Your task to perform on an android device: Check the best rated table lamp on Crate and Barrel Image 0: 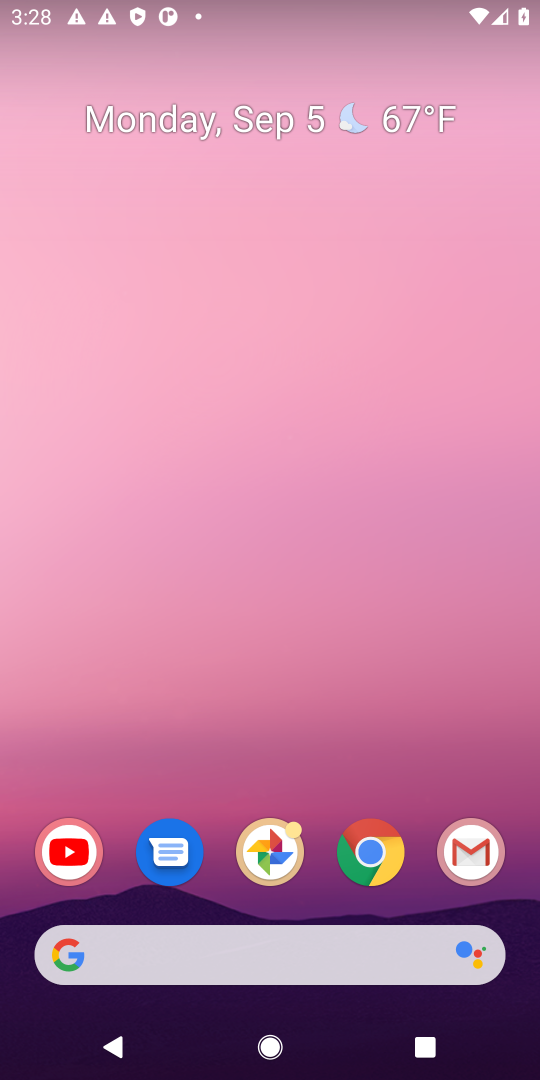
Step 0: click (369, 852)
Your task to perform on an android device: Check the best rated table lamp on Crate and Barrel Image 1: 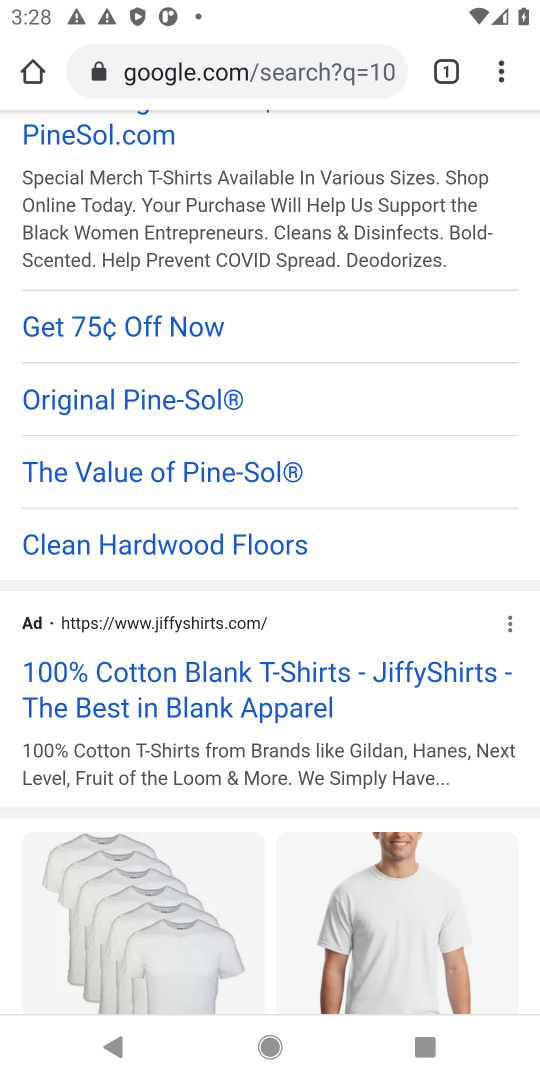
Step 1: click (356, 43)
Your task to perform on an android device: Check the best rated table lamp on Crate and Barrel Image 2: 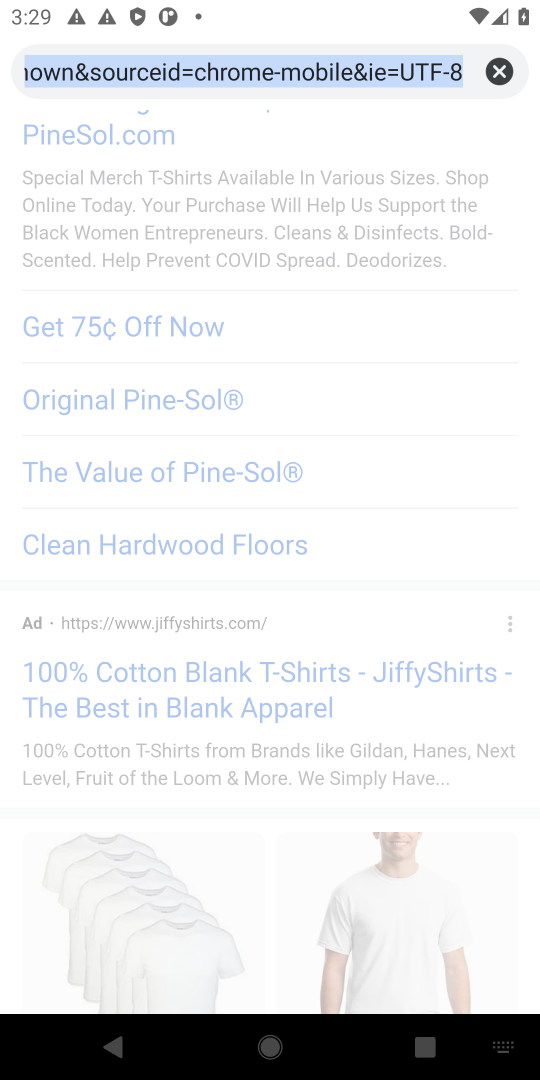
Step 2: click (493, 66)
Your task to perform on an android device: Check the best rated table lamp on Crate and Barrel Image 3: 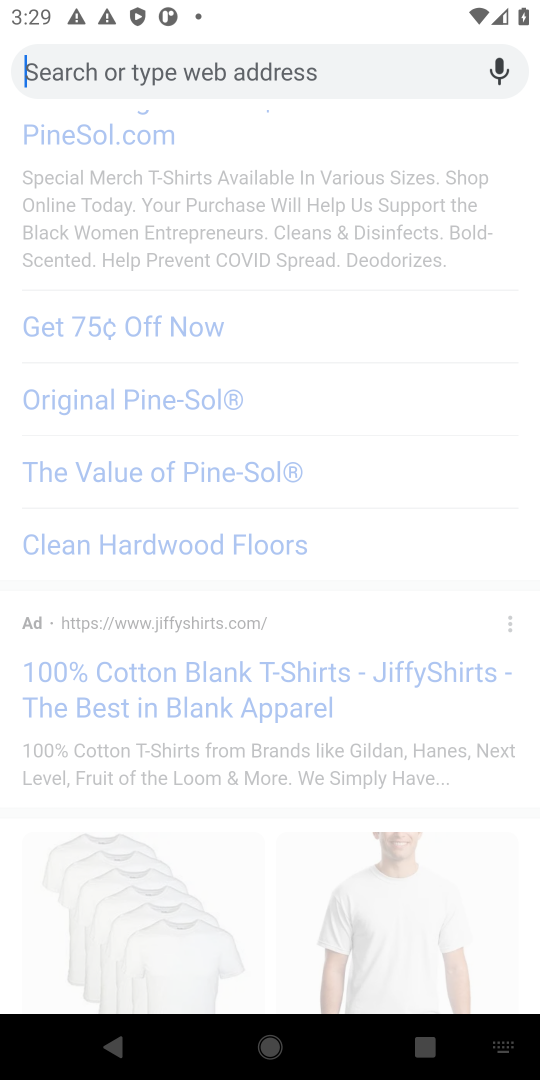
Step 3: type "Crate and Barrel"
Your task to perform on an android device: Check the best rated table lamp on Crate and Barrel Image 4: 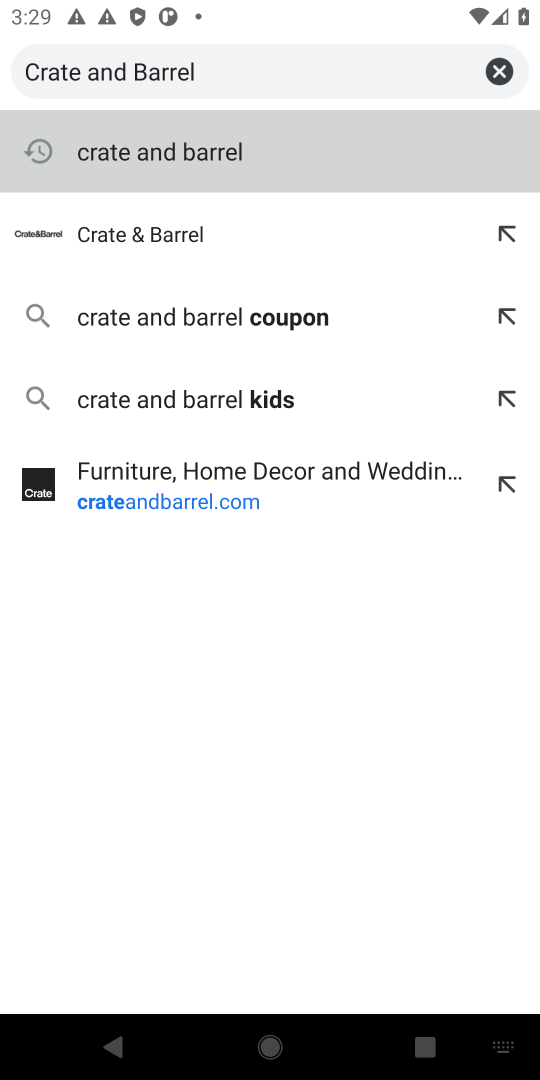
Step 4: click (129, 236)
Your task to perform on an android device: Check the best rated table lamp on Crate and Barrel Image 5: 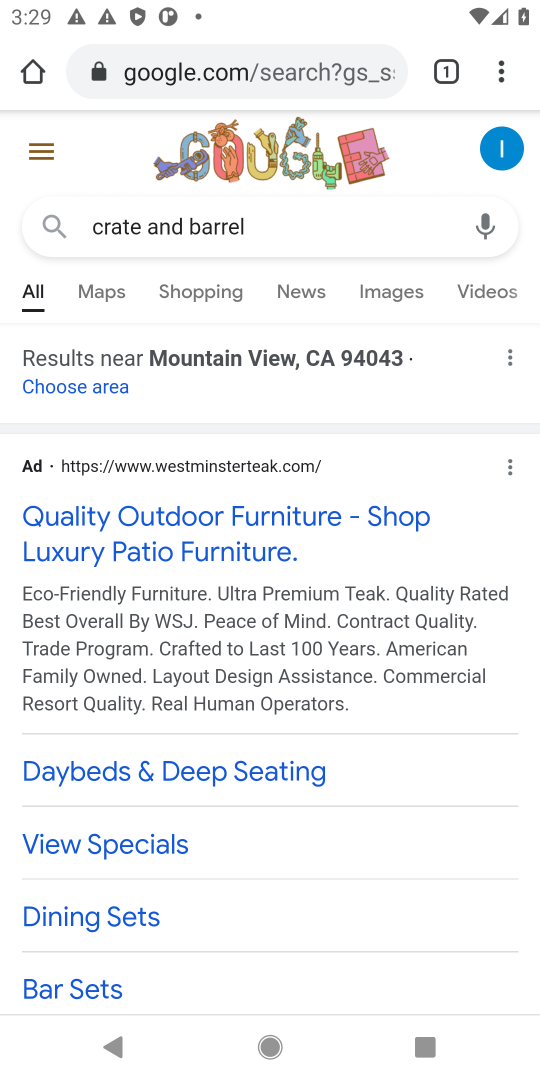
Step 5: drag from (343, 816) to (316, 184)
Your task to perform on an android device: Check the best rated table lamp on Crate and Barrel Image 6: 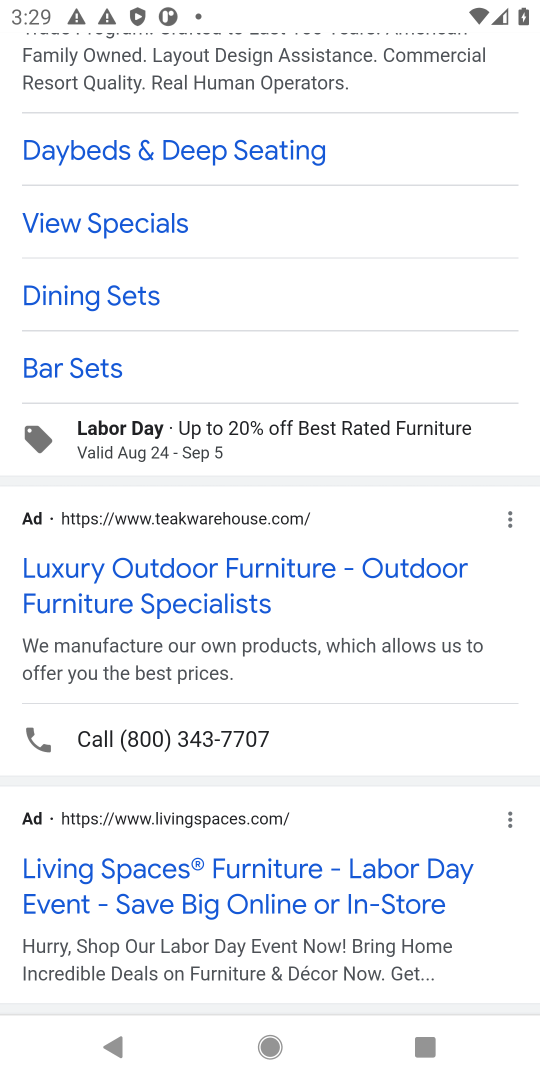
Step 6: drag from (316, 815) to (312, 252)
Your task to perform on an android device: Check the best rated table lamp on Crate and Barrel Image 7: 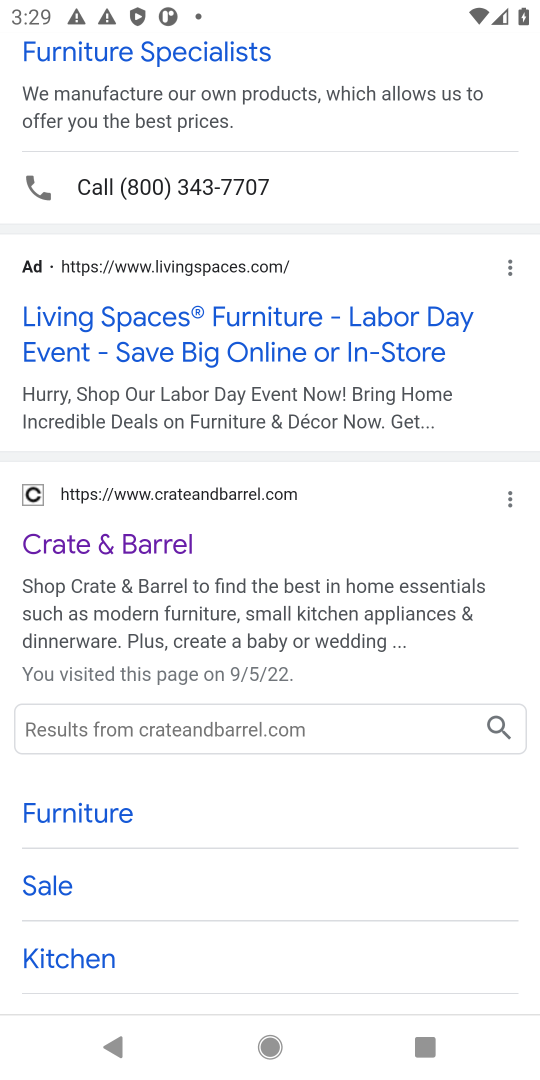
Step 7: click (76, 538)
Your task to perform on an android device: Check the best rated table lamp on Crate and Barrel Image 8: 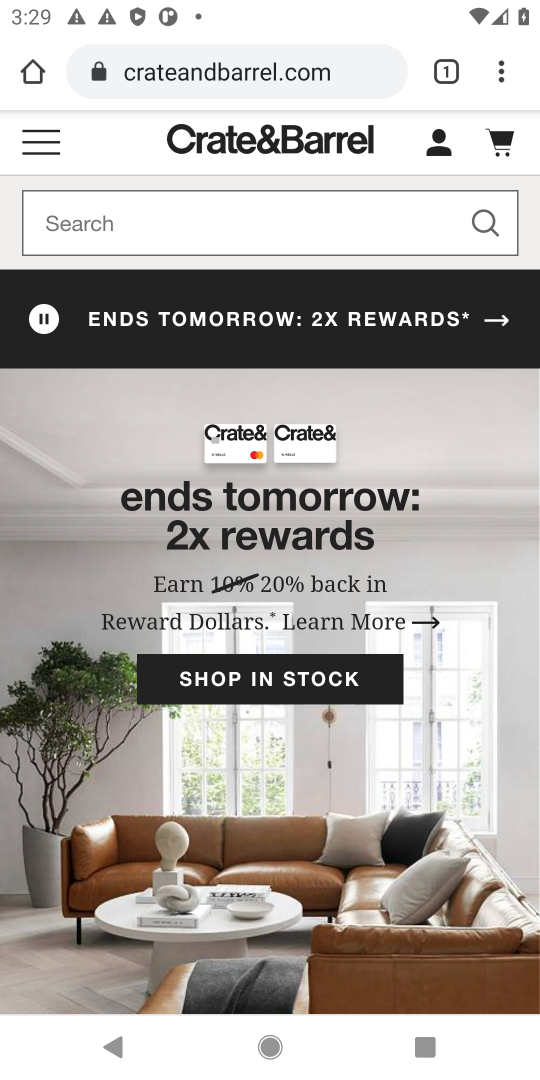
Step 8: click (122, 217)
Your task to perform on an android device: Check the best rated table lamp on Crate and Barrel Image 9: 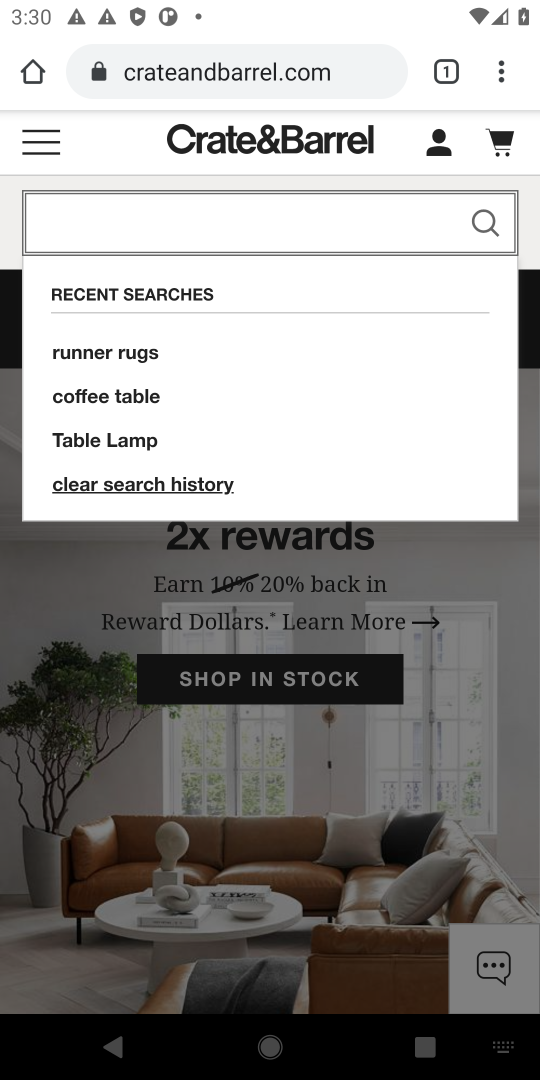
Step 9: click (80, 433)
Your task to perform on an android device: Check the best rated table lamp on Crate and Barrel Image 10: 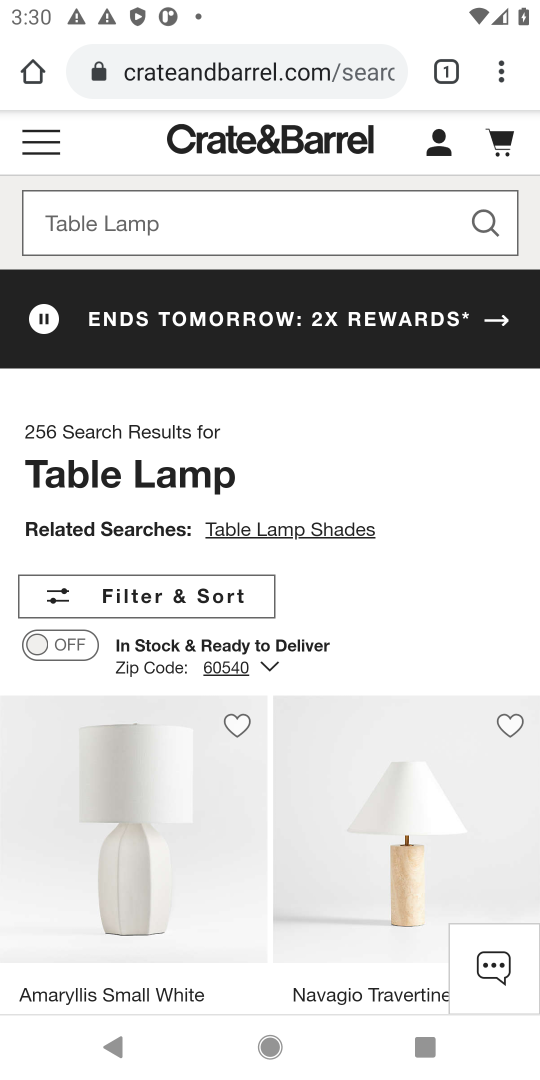
Step 10: drag from (266, 711) to (277, 219)
Your task to perform on an android device: Check the best rated table lamp on Crate and Barrel Image 11: 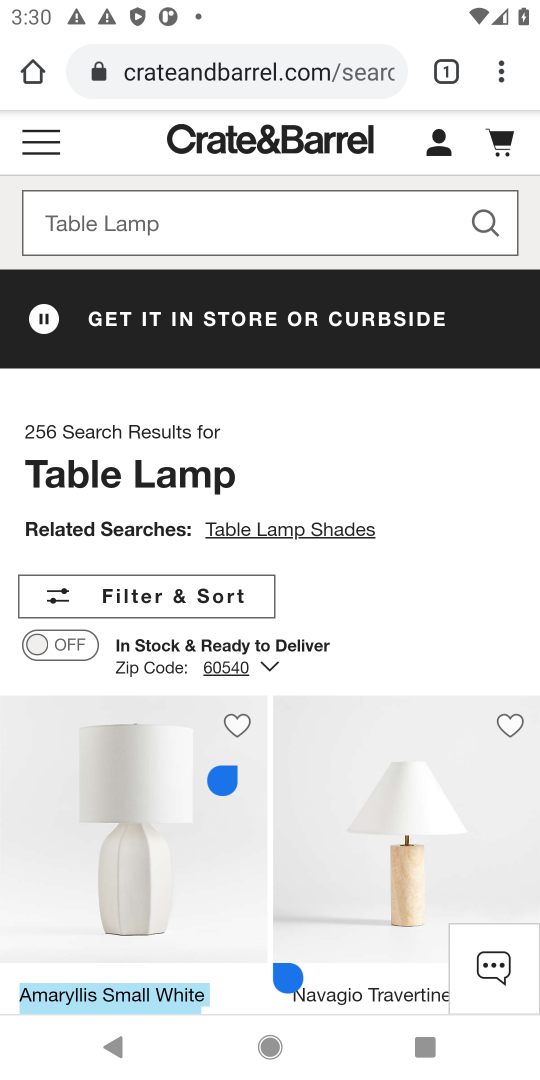
Step 11: drag from (266, 705) to (272, 162)
Your task to perform on an android device: Check the best rated table lamp on Crate and Barrel Image 12: 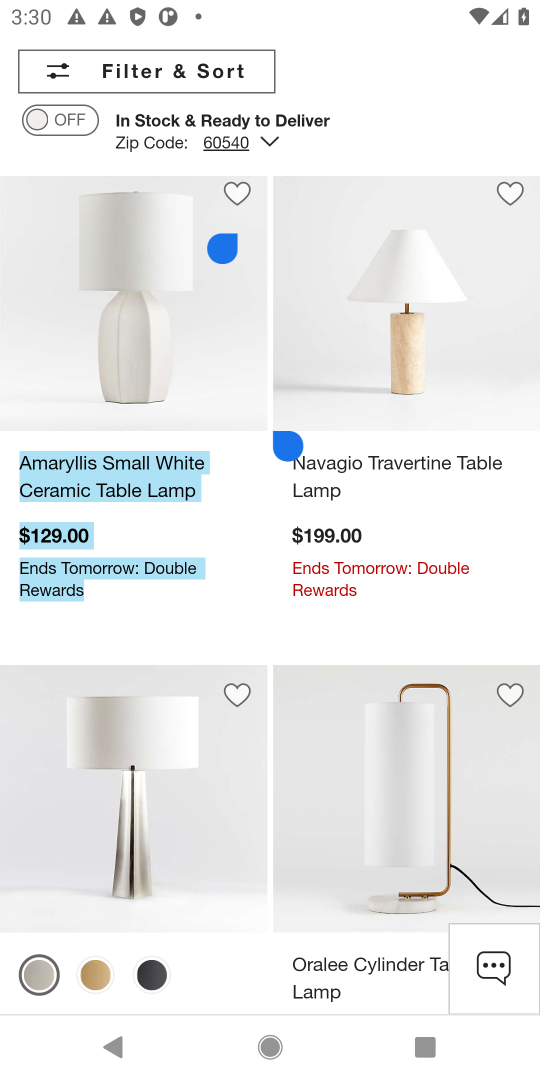
Step 12: drag from (276, 615) to (258, 112)
Your task to perform on an android device: Check the best rated table lamp on Crate and Barrel Image 13: 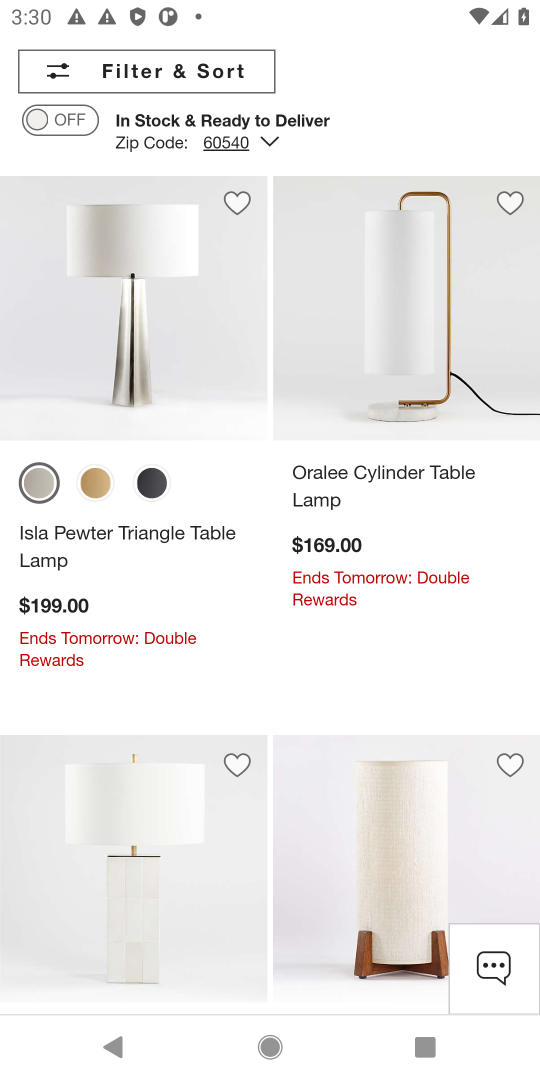
Step 13: click (269, 719)
Your task to perform on an android device: Check the best rated table lamp on Crate and Barrel Image 14: 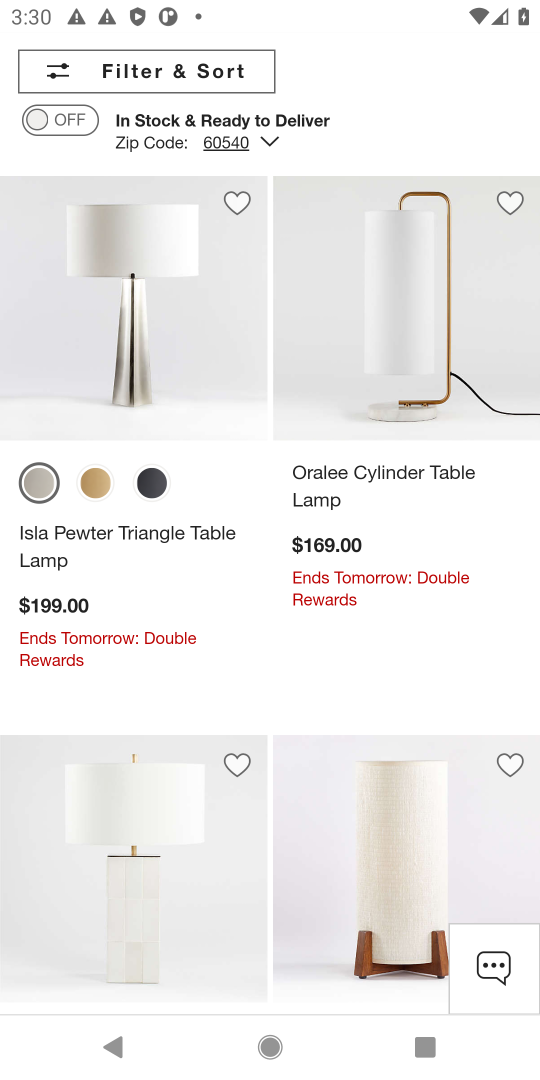
Step 14: task complete